Your task to perform on an android device: Find coffee shops on Maps Image 0: 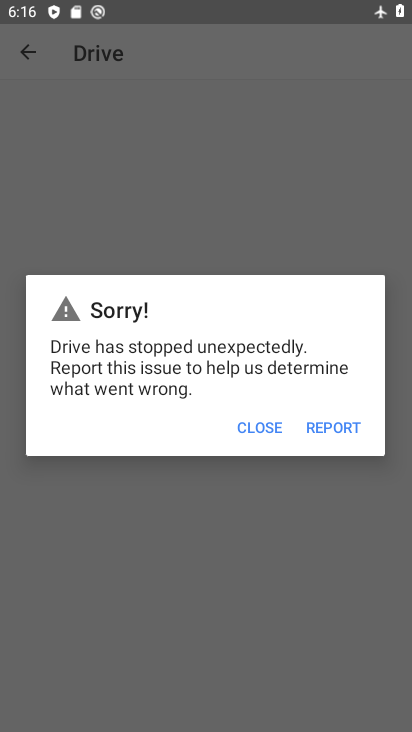
Step 0: press home button
Your task to perform on an android device: Find coffee shops on Maps Image 1: 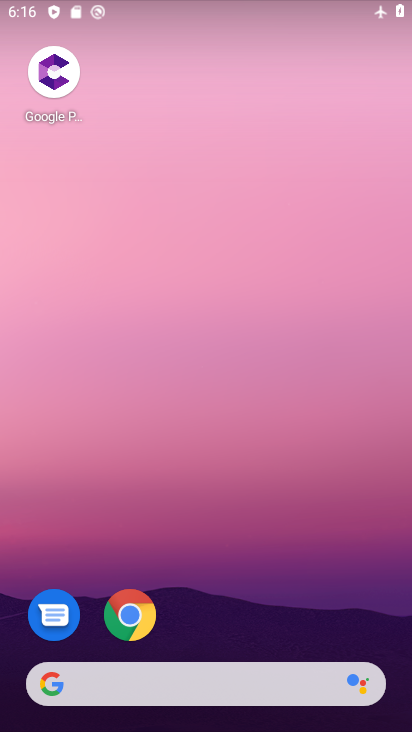
Step 1: drag from (332, 680) to (394, 41)
Your task to perform on an android device: Find coffee shops on Maps Image 2: 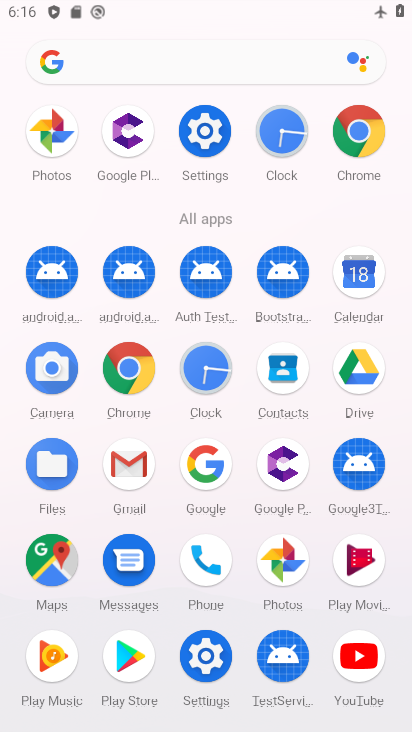
Step 2: click (59, 564)
Your task to perform on an android device: Find coffee shops on Maps Image 3: 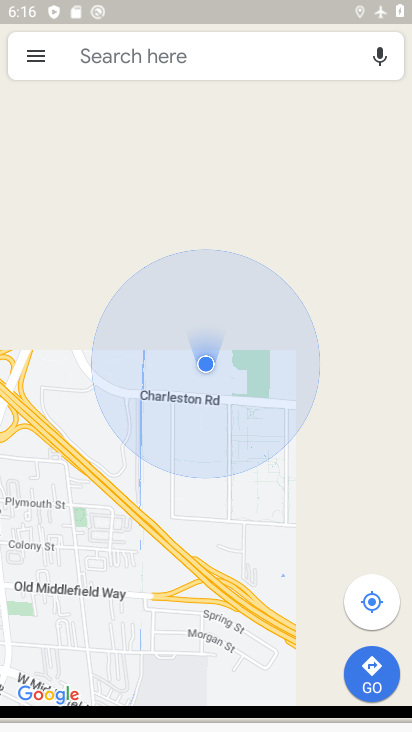
Step 3: click (318, 66)
Your task to perform on an android device: Find coffee shops on Maps Image 4: 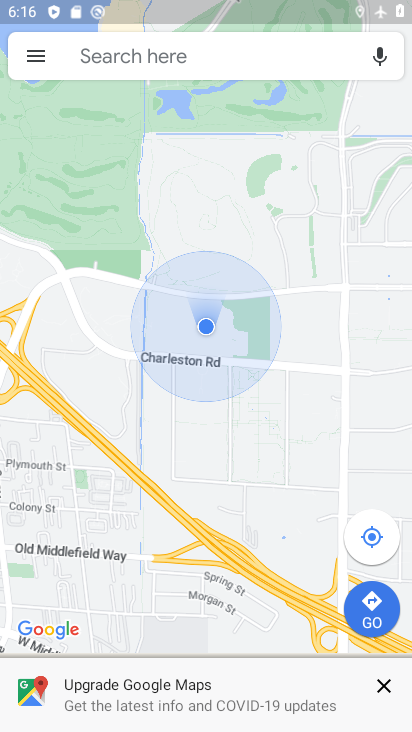
Step 4: click (320, 66)
Your task to perform on an android device: Find coffee shops on Maps Image 5: 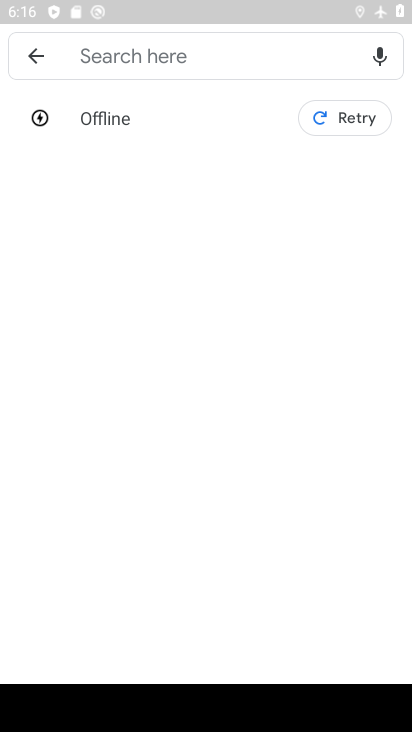
Step 5: task complete